Your task to perform on an android device: move an email to a new category in the gmail app Image 0: 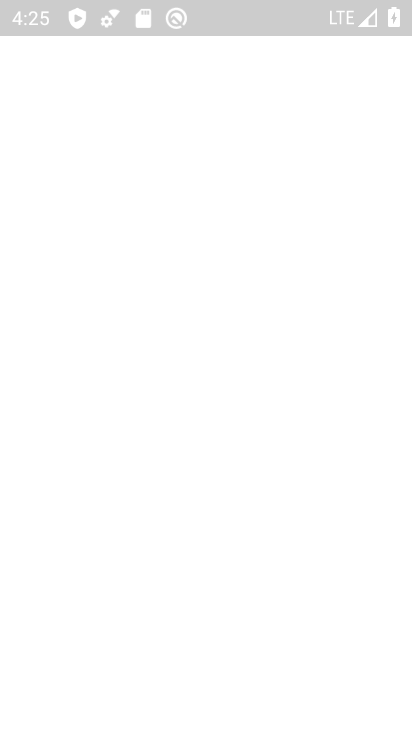
Step 0: click (215, 572)
Your task to perform on an android device: move an email to a new category in the gmail app Image 1: 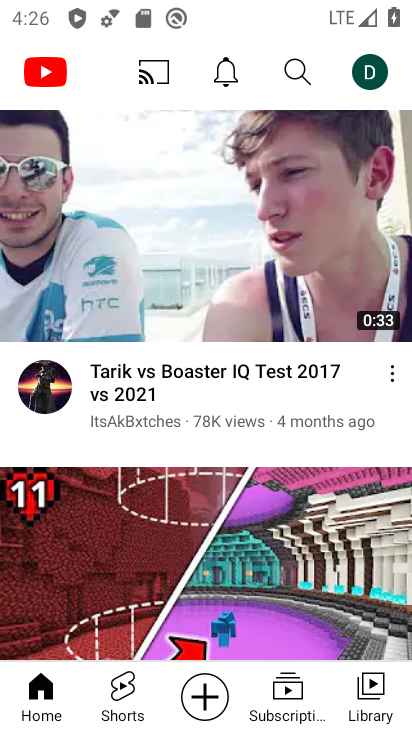
Step 1: press home button
Your task to perform on an android device: move an email to a new category in the gmail app Image 2: 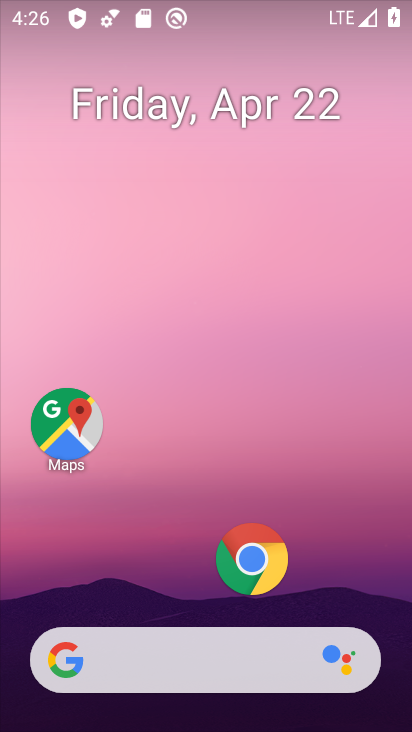
Step 2: drag from (171, 546) to (206, 323)
Your task to perform on an android device: move an email to a new category in the gmail app Image 3: 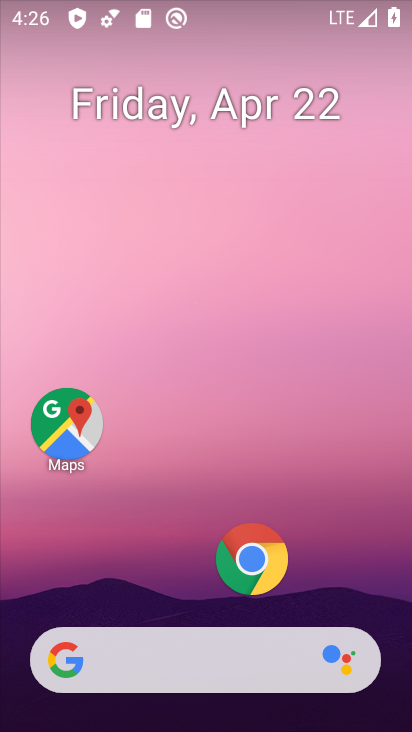
Step 3: drag from (132, 579) to (180, 73)
Your task to perform on an android device: move an email to a new category in the gmail app Image 4: 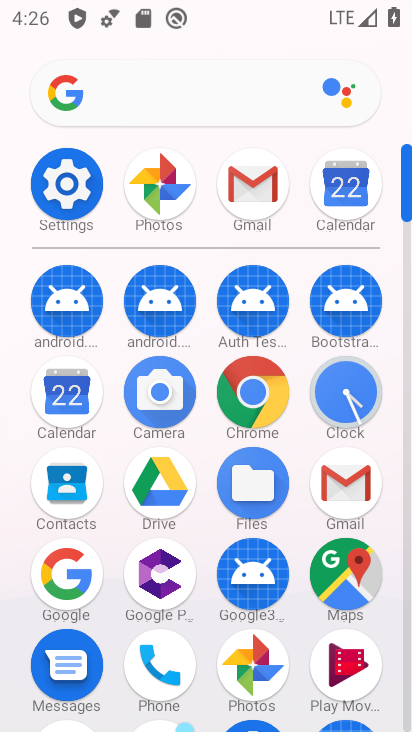
Step 4: click (341, 477)
Your task to perform on an android device: move an email to a new category in the gmail app Image 5: 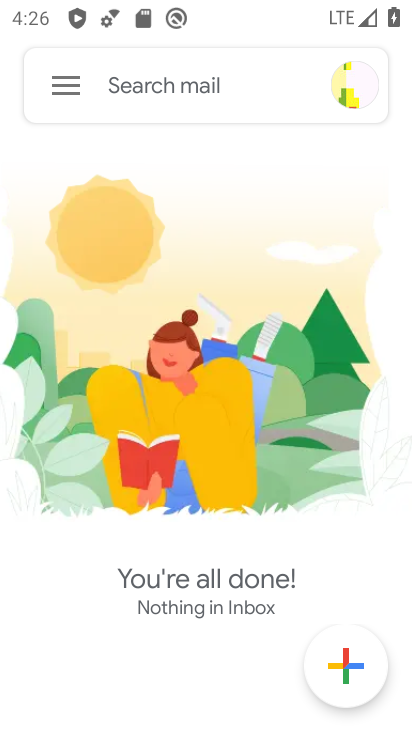
Step 5: task complete